Your task to perform on an android device: Do I have any events tomorrow? Image 0: 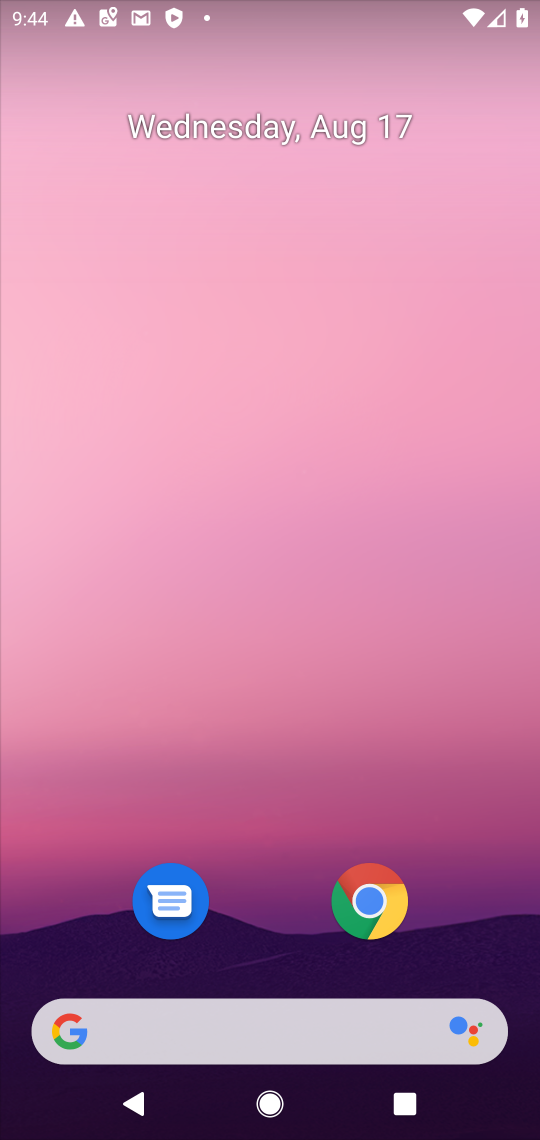
Step 0: click (347, 139)
Your task to perform on an android device: Do I have any events tomorrow? Image 1: 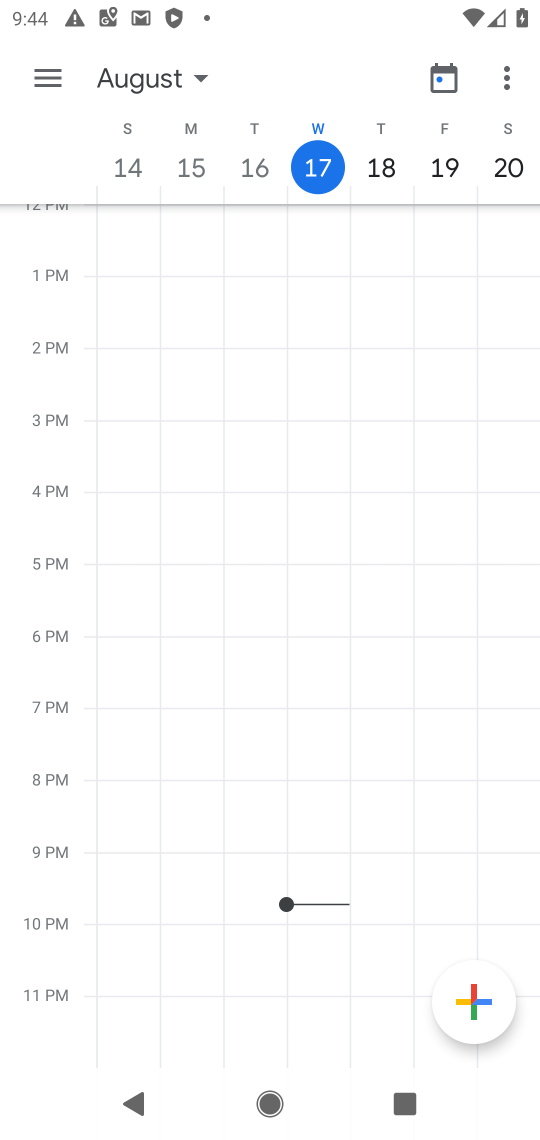
Step 1: click (374, 155)
Your task to perform on an android device: Do I have any events tomorrow? Image 2: 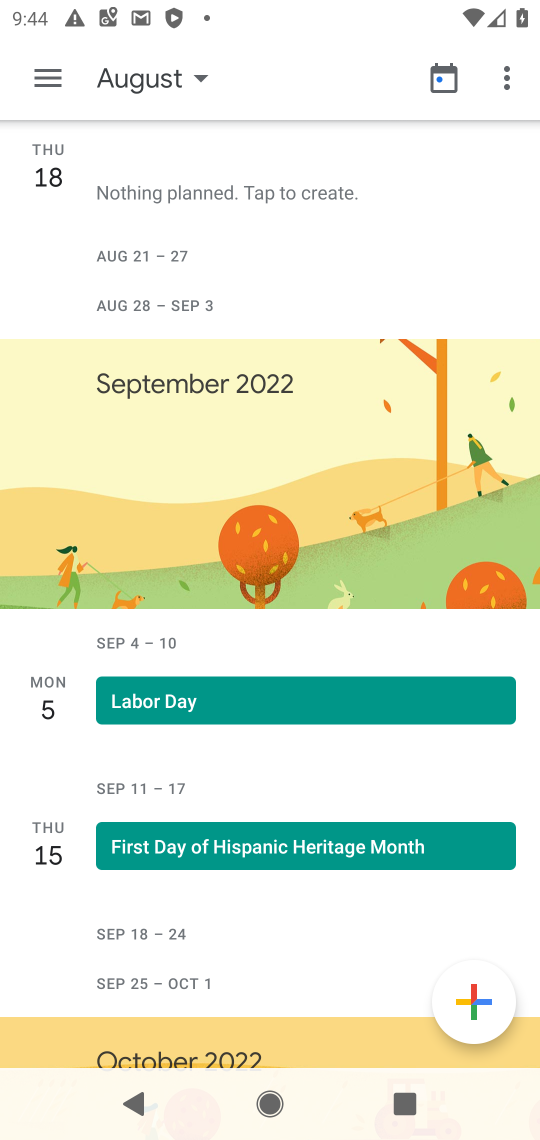
Step 2: task complete